Your task to perform on an android device: toggle notification dots Image 0: 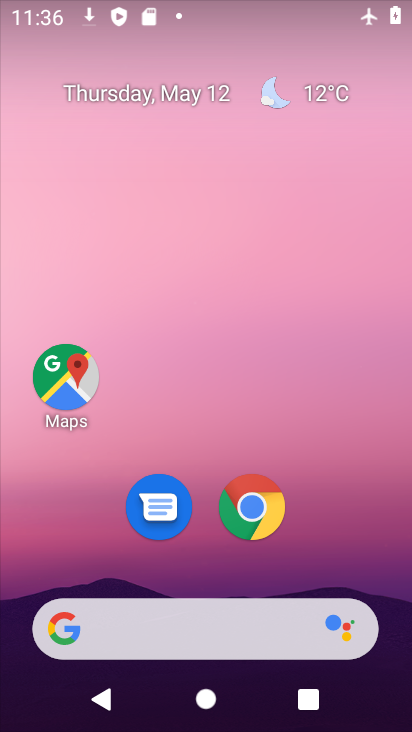
Step 0: click (295, 399)
Your task to perform on an android device: toggle notification dots Image 1: 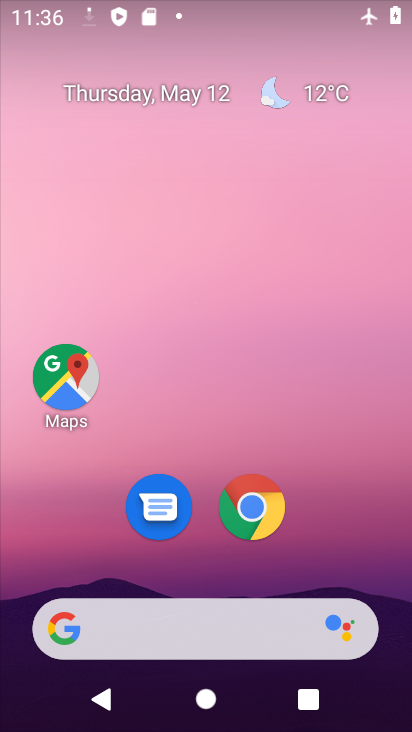
Step 1: drag from (291, 456) to (265, 83)
Your task to perform on an android device: toggle notification dots Image 2: 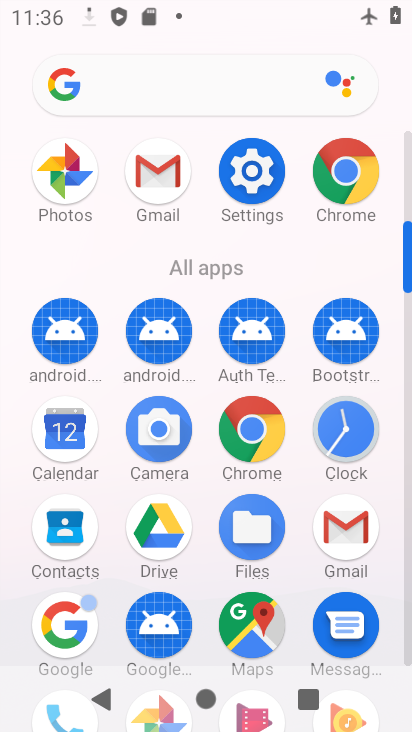
Step 2: click (252, 177)
Your task to perform on an android device: toggle notification dots Image 3: 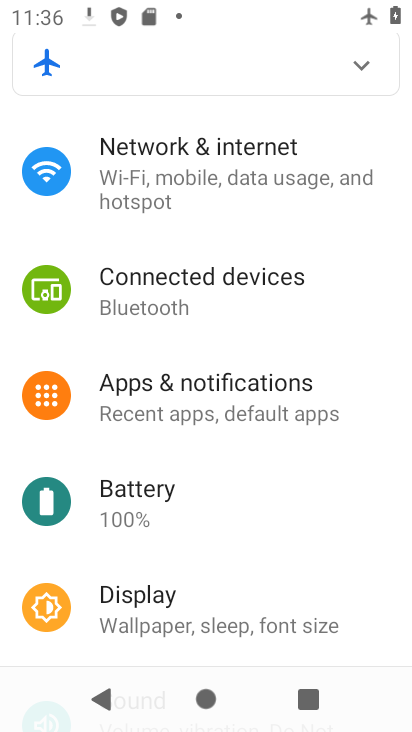
Step 3: click (251, 384)
Your task to perform on an android device: toggle notification dots Image 4: 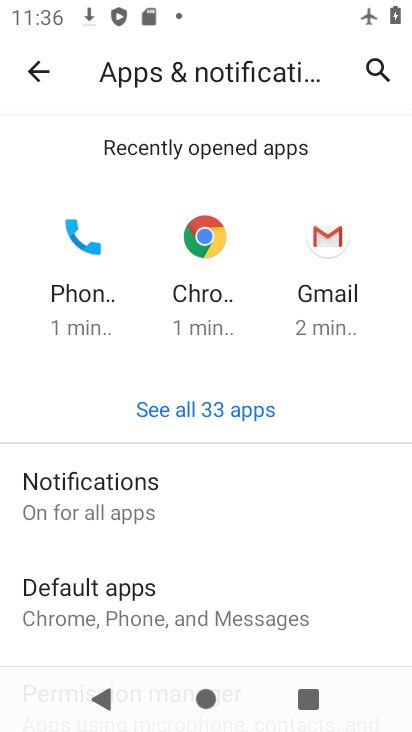
Step 4: click (182, 501)
Your task to perform on an android device: toggle notification dots Image 5: 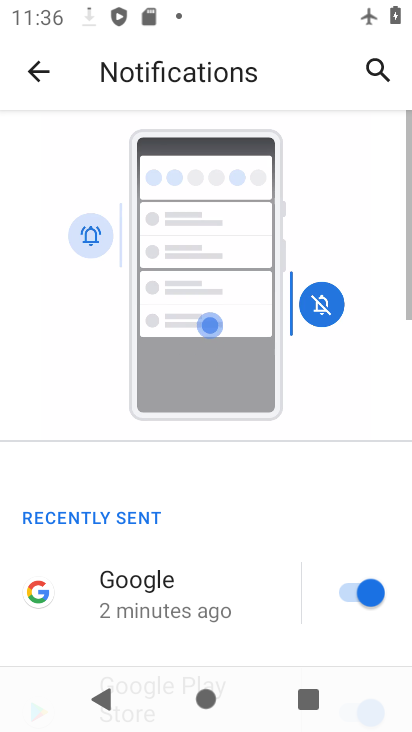
Step 5: drag from (200, 530) to (241, 152)
Your task to perform on an android device: toggle notification dots Image 6: 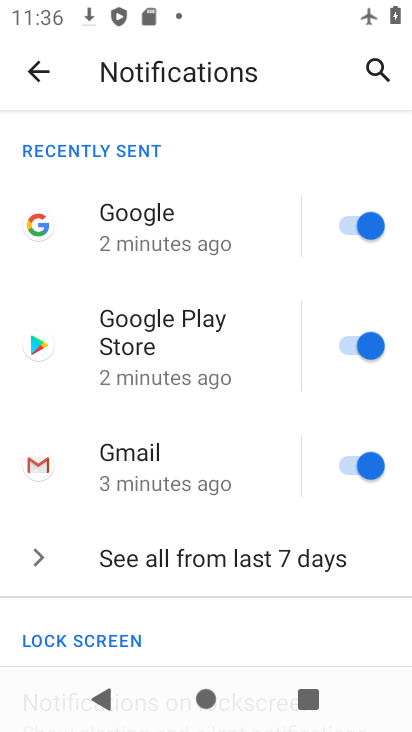
Step 6: drag from (164, 593) to (162, 191)
Your task to perform on an android device: toggle notification dots Image 7: 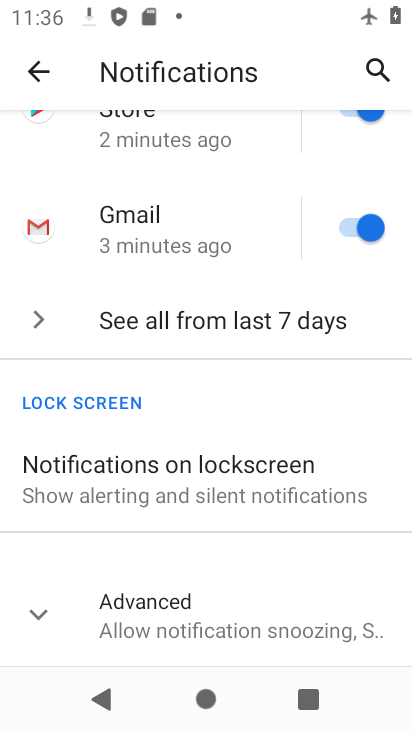
Step 7: click (43, 610)
Your task to perform on an android device: toggle notification dots Image 8: 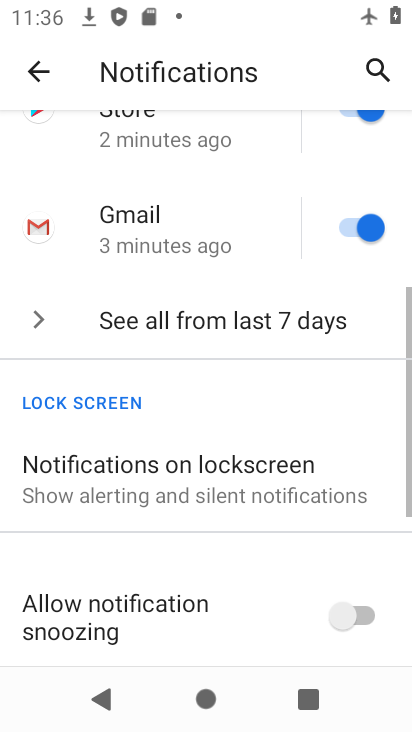
Step 8: drag from (97, 598) to (175, 210)
Your task to perform on an android device: toggle notification dots Image 9: 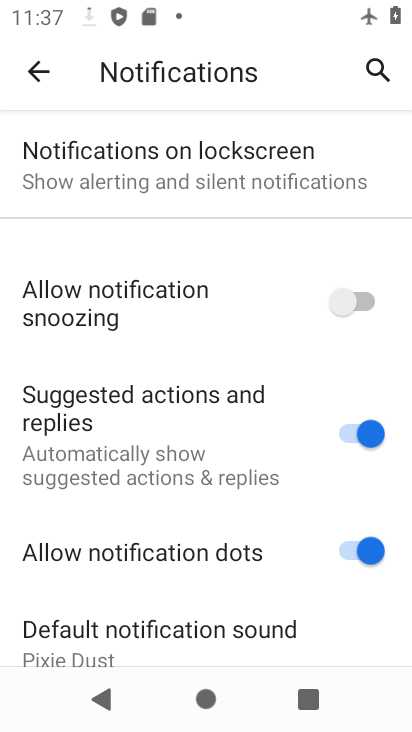
Step 9: click (374, 544)
Your task to perform on an android device: toggle notification dots Image 10: 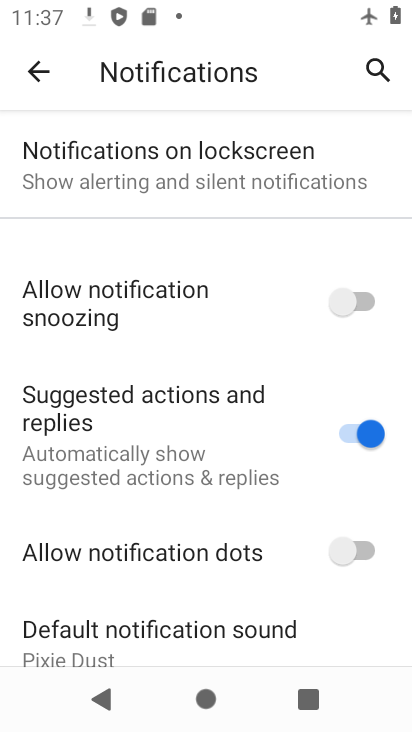
Step 10: task complete